Your task to perform on an android device: Open the phone app and click the voicemail tab. Image 0: 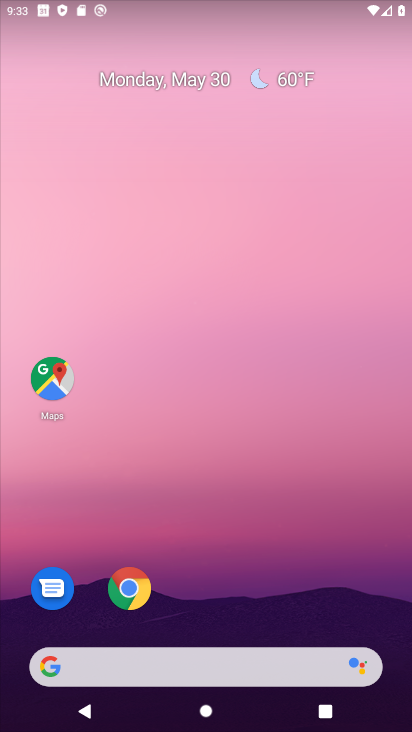
Step 0: drag from (190, 628) to (289, 5)
Your task to perform on an android device: Open the phone app and click the voicemail tab. Image 1: 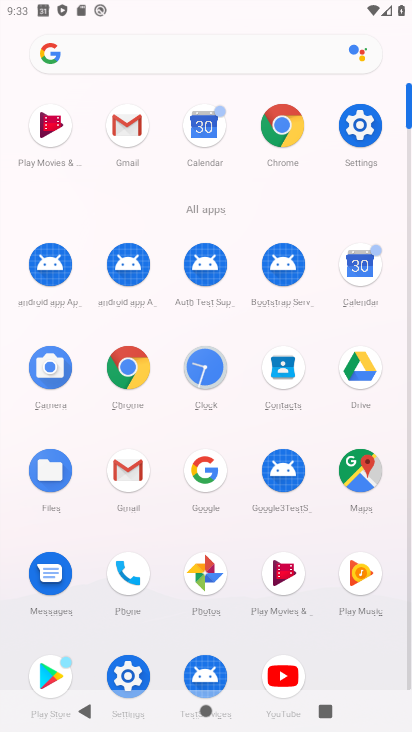
Step 1: click (132, 577)
Your task to perform on an android device: Open the phone app and click the voicemail tab. Image 2: 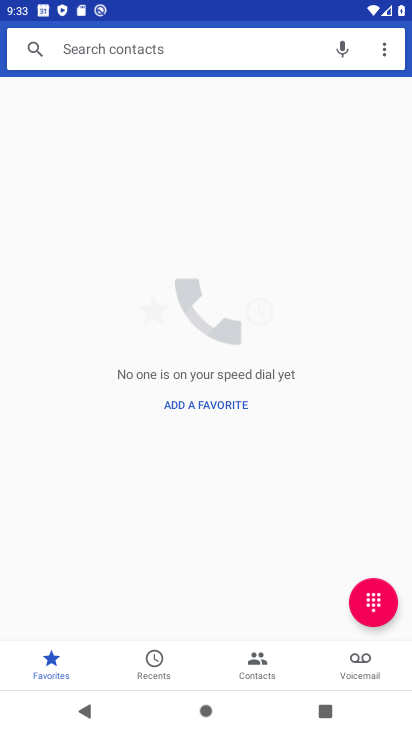
Step 2: click (364, 672)
Your task to perform on an android device: Open the phone app and click the voicemail tab. Image 3: 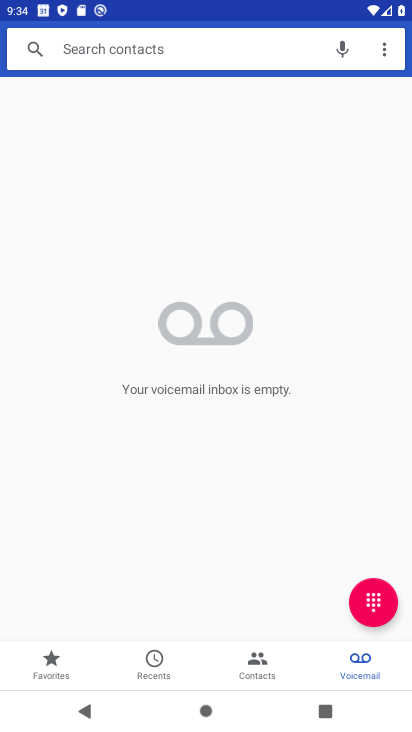
Step 3: task complete